Your task to perform on an android device: When is my next meeting? Image 0: 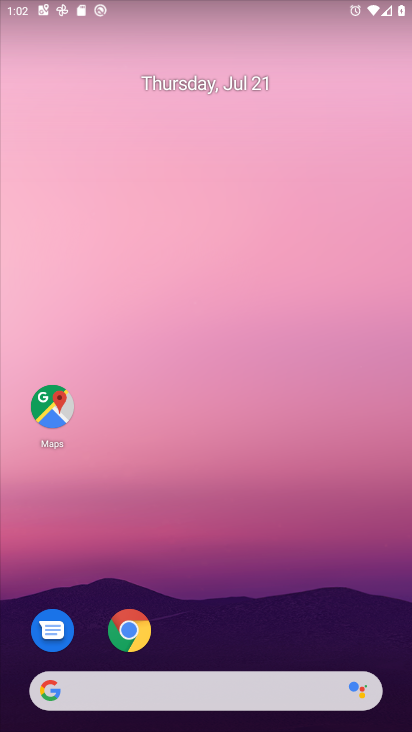
Step 0: drag from (182, 658) to (291, 109)
Your task to perform on an android device: When is my next meeting? Image 1: 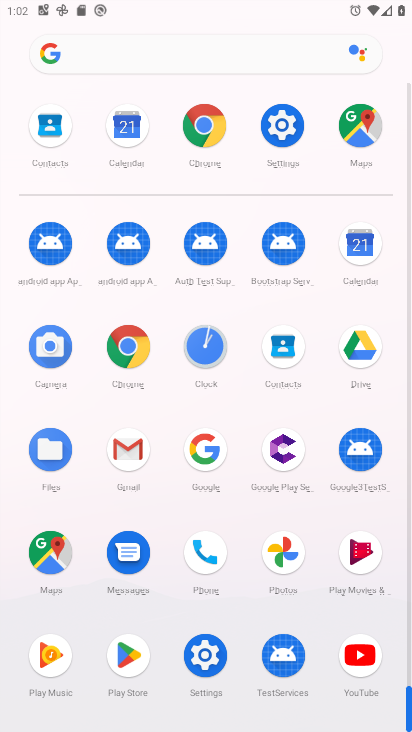
Step 1: click (354, 246)
Your task to perform on an android device: When is my next meeting? Image 2: 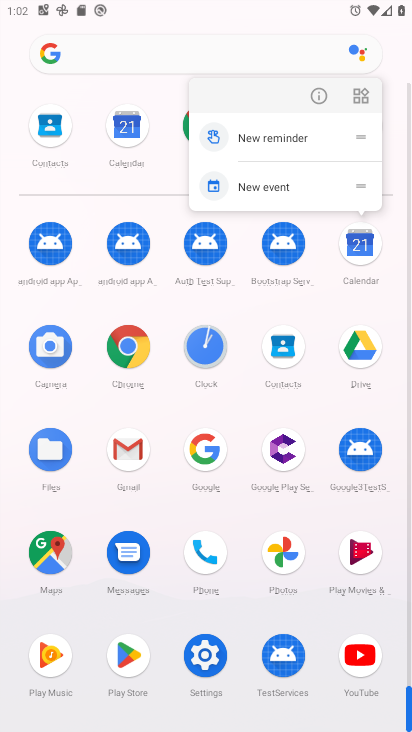
Step 2: click (310, 96)
Your task to perform on an android device: When is my next meeting? Image 3: 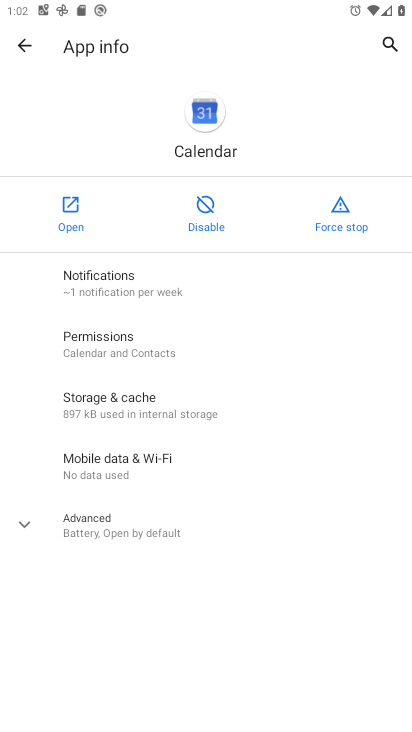
Step 3: click (65, 211)
Your task to perform on an android device: When is my next meeting? Image 4: 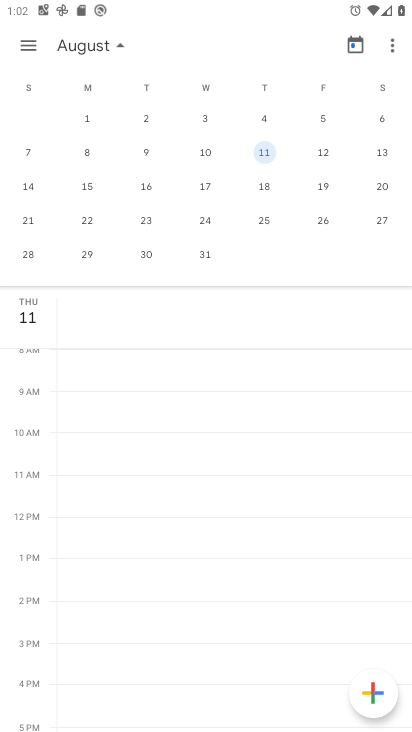
Step 4: drag from (133, 196) to (411, 174)
Your task to perform on an android device: When is my next meeting? Image 5: 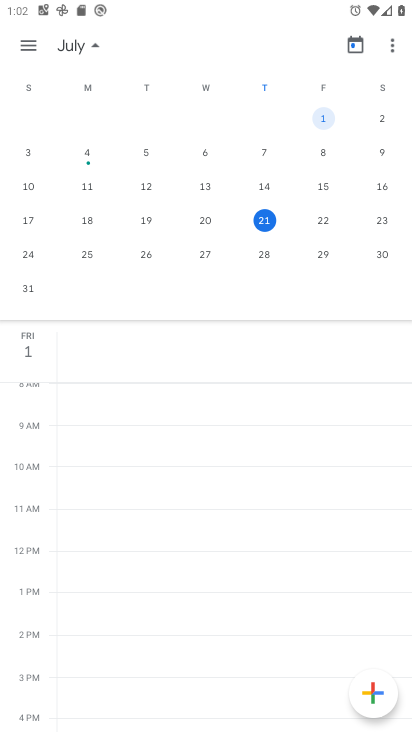
Step 5: click (361, 45)
Your task to perform on an android device: When is my next meeting? Image 6: 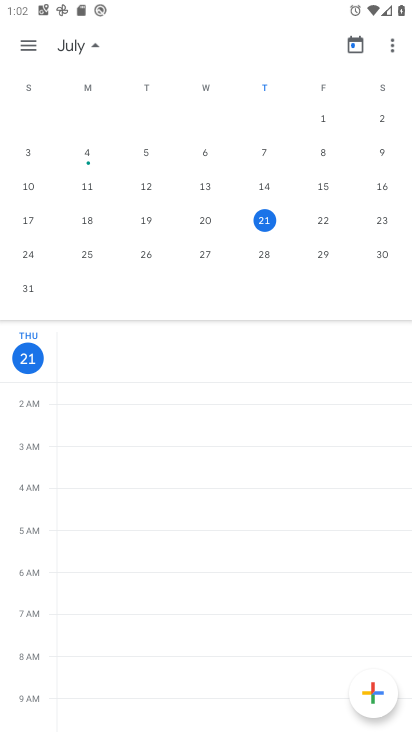
Step 6: click (268, 212)
Your task to perform on an android device: When is my next meeting? Image 7: 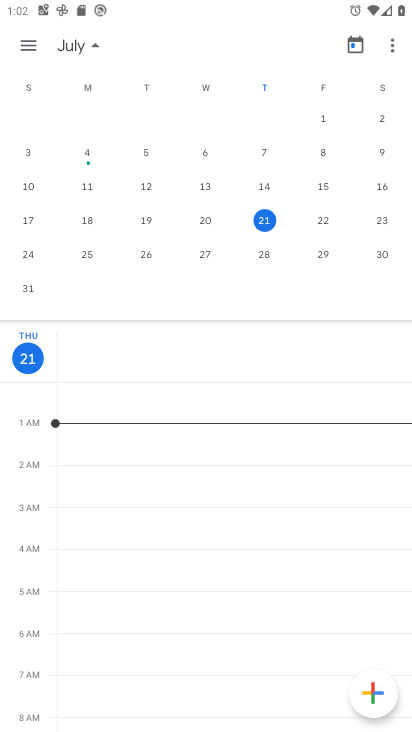
Step 7: task complete